Your task to perform on an android device: Open Android settings Image 0: 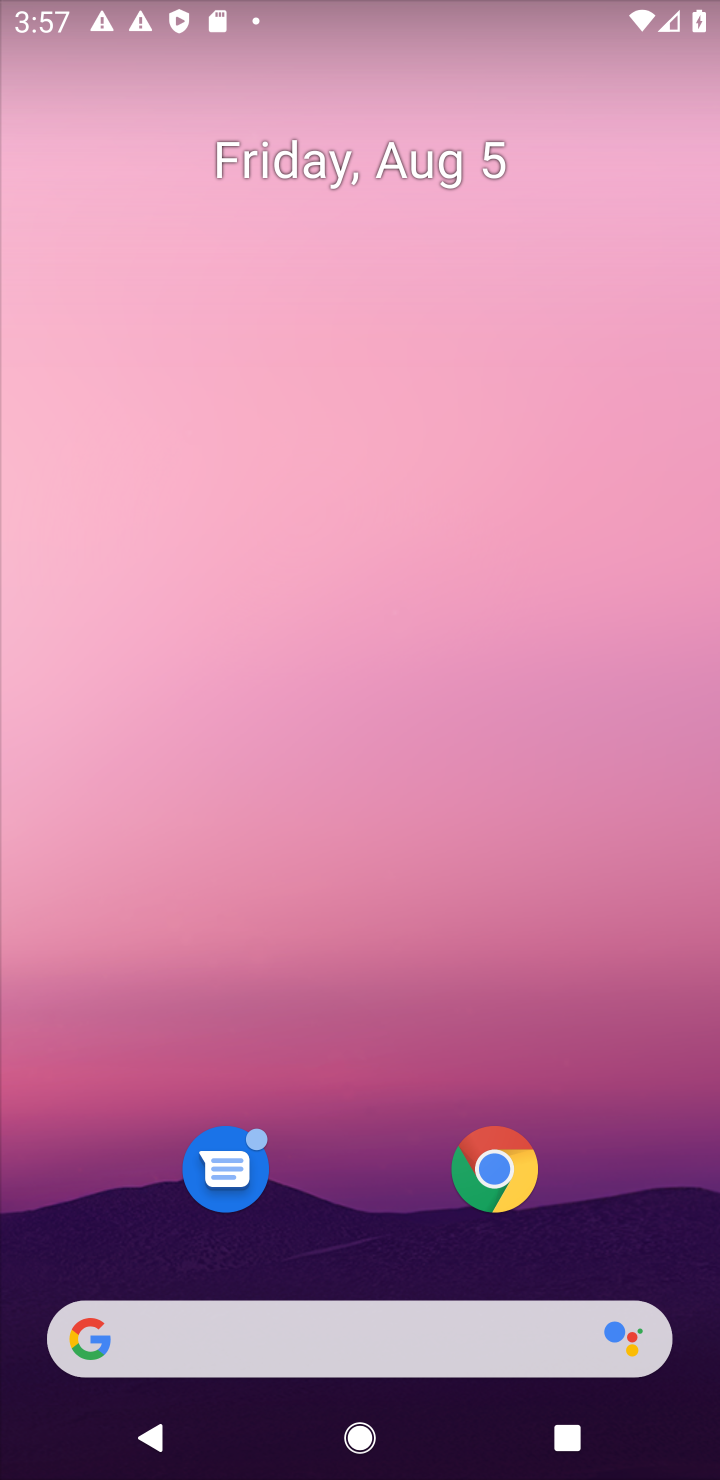
Step 0: press home button
Your task to perform on an android device: Open Android settings Image 1: 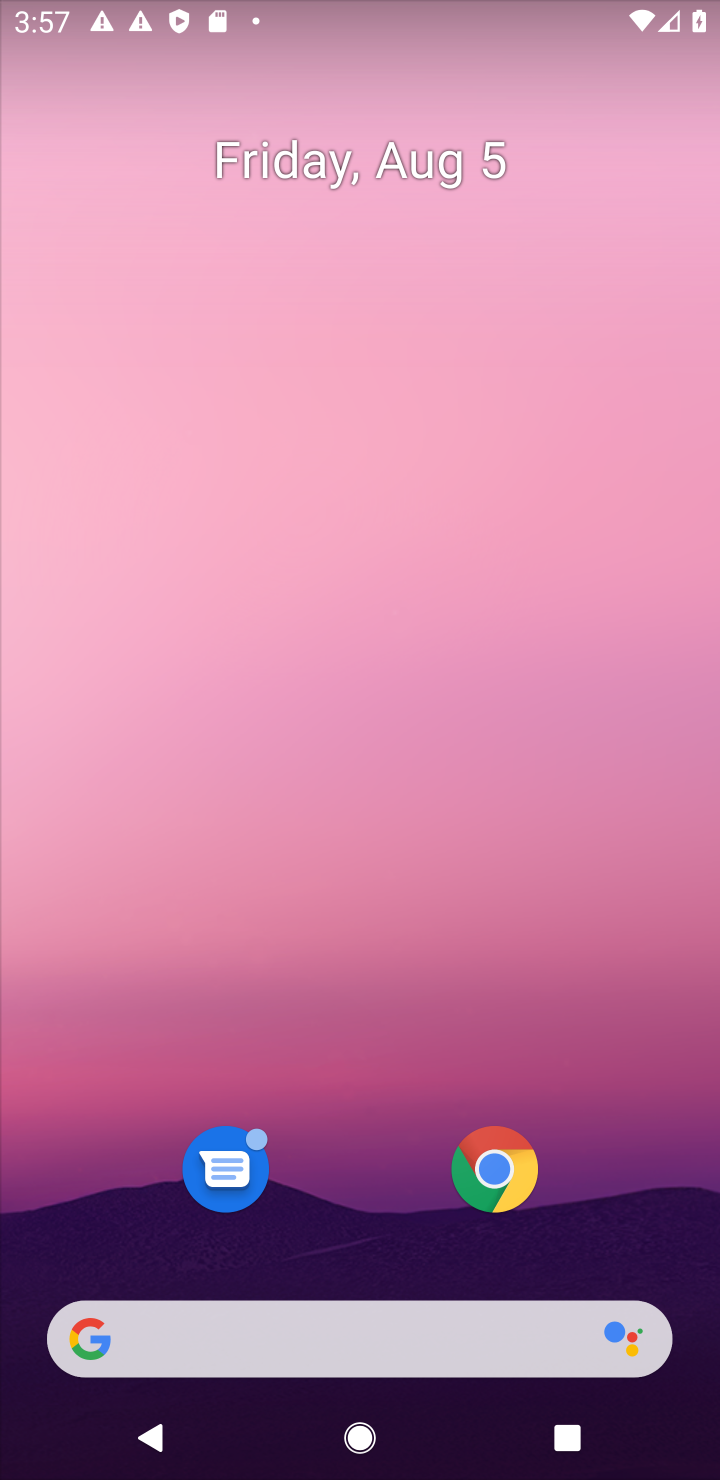
Step 1: click (330, 75)
Your task to perform on an android device: Open Android settings Image 2: 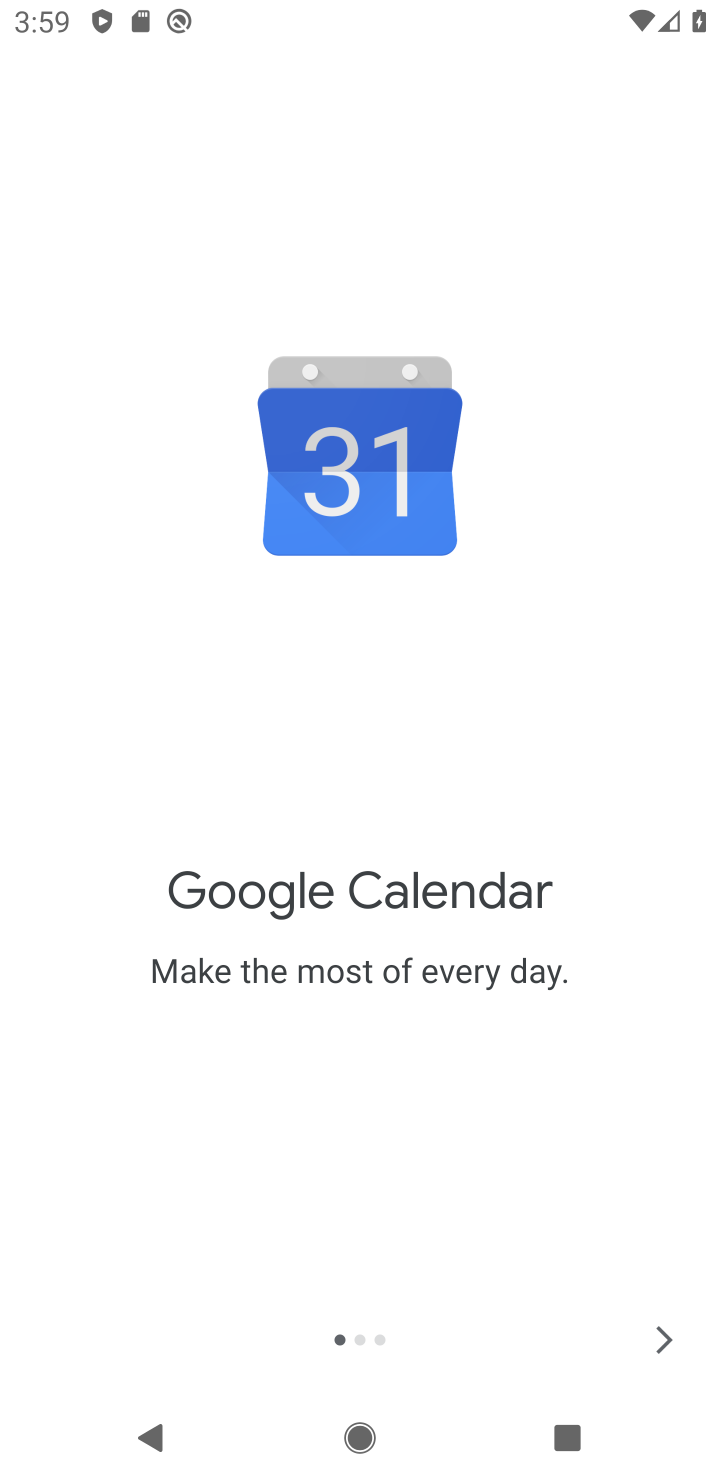
Step 2: press home button
Your task to perform on an android device: Open Android settings Image 3: 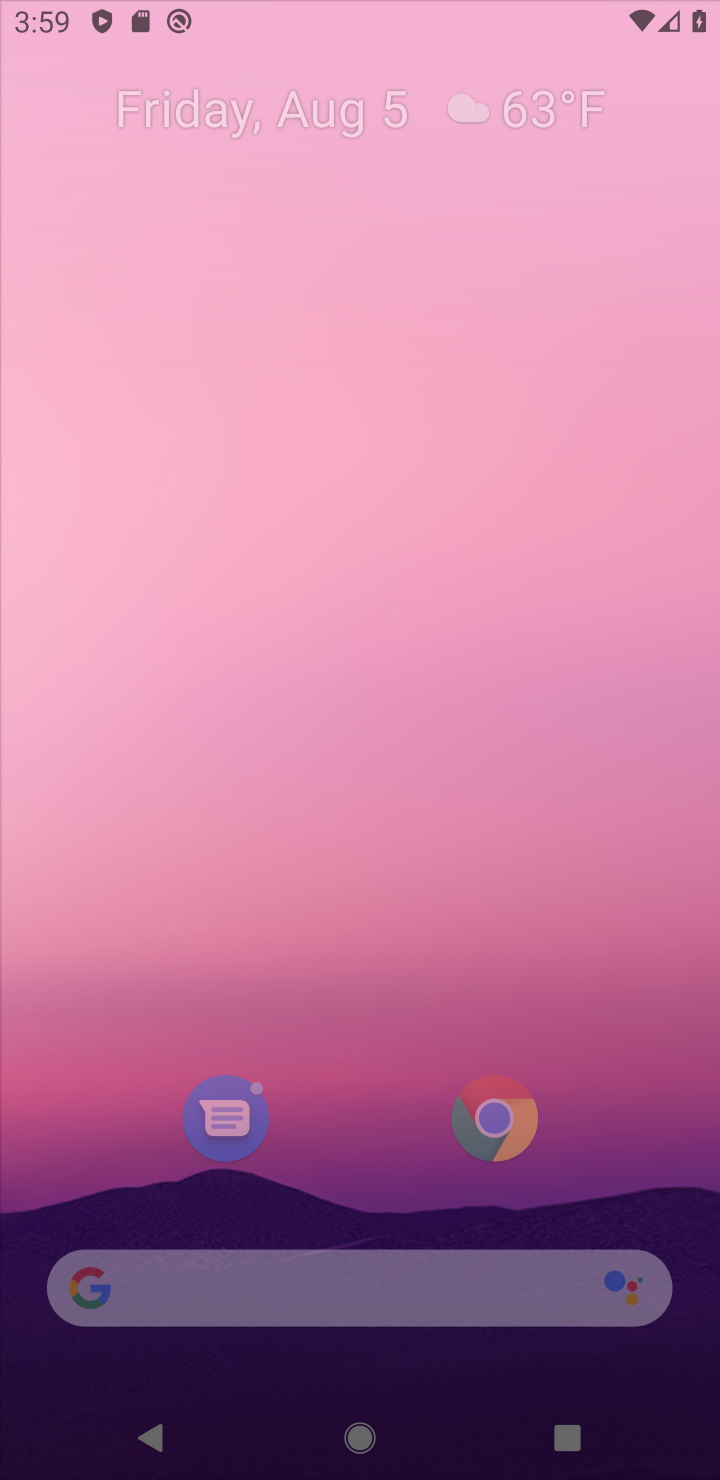
Step 3: drag from (377, 591) to (372, 498)
Your task to perform on an android device: Open Android settings Image 4: 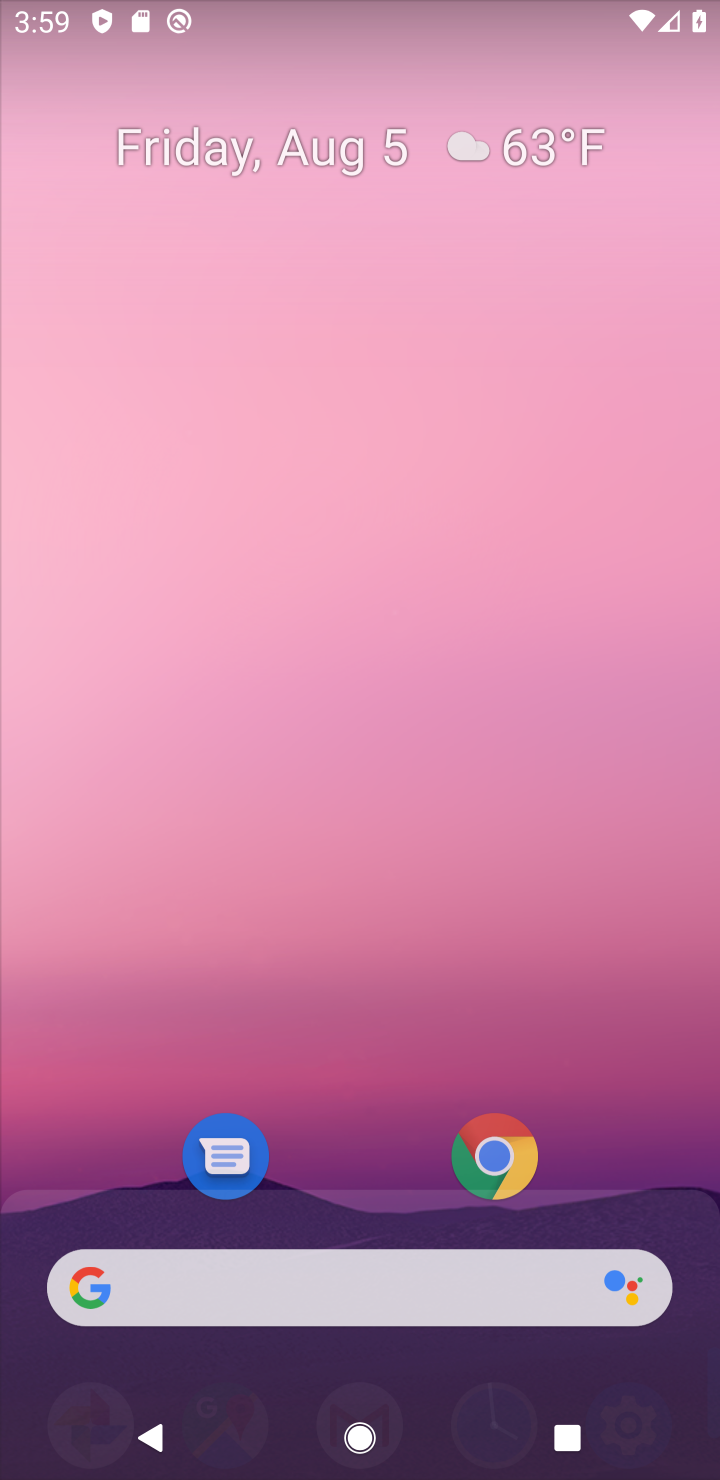
Step 4: drag from (376, 1315) to (370, 311)
Your task to perform on an android device: Open Android settings Image 5: 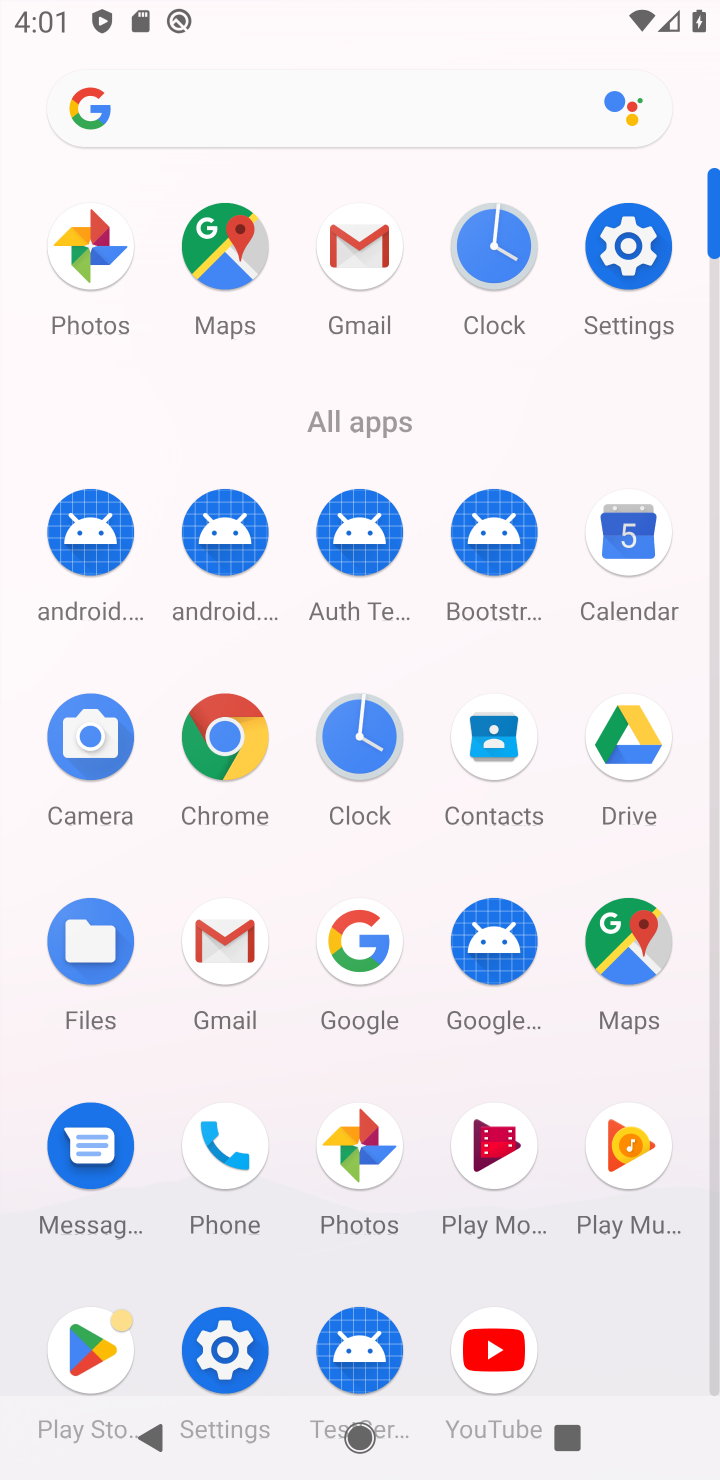
Step 5: click (649, 252)
Your task to perform on an android device: Open Android settings Image 6: 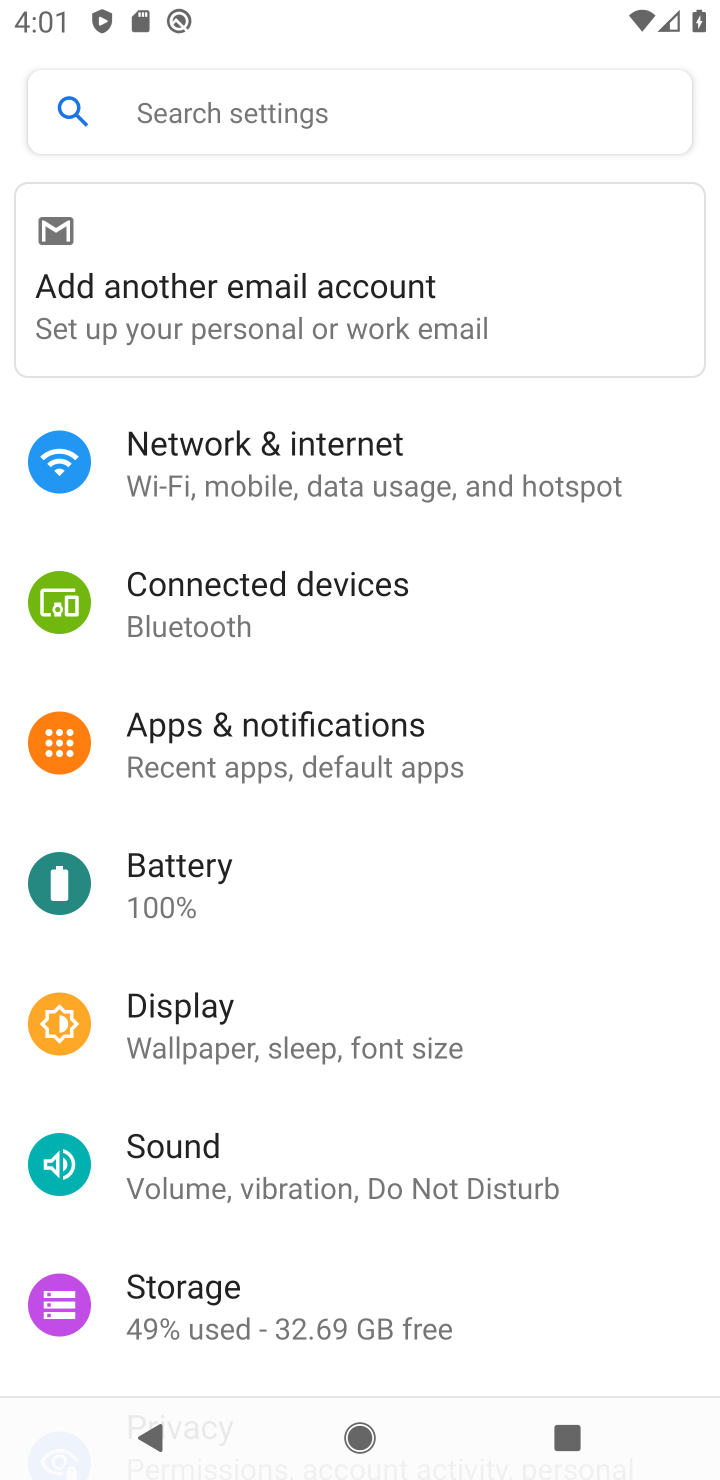
Step 6: task complete